Your task to perform on an android device: uninstall "ColorNote Notepad Notes" Image 0: 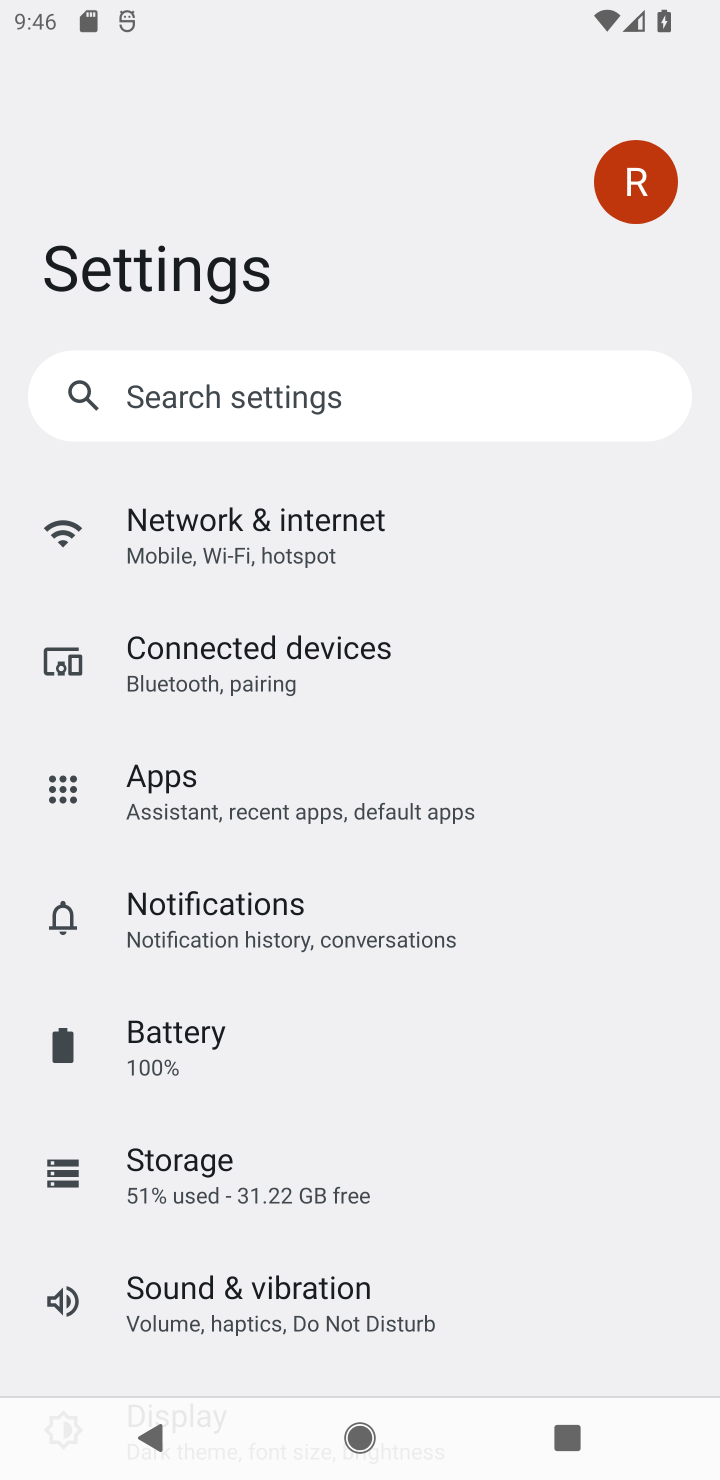
Step 0: press home button
Your task to perform on an android device: uninstall "ColorNote Notepad Notes" Image 1: 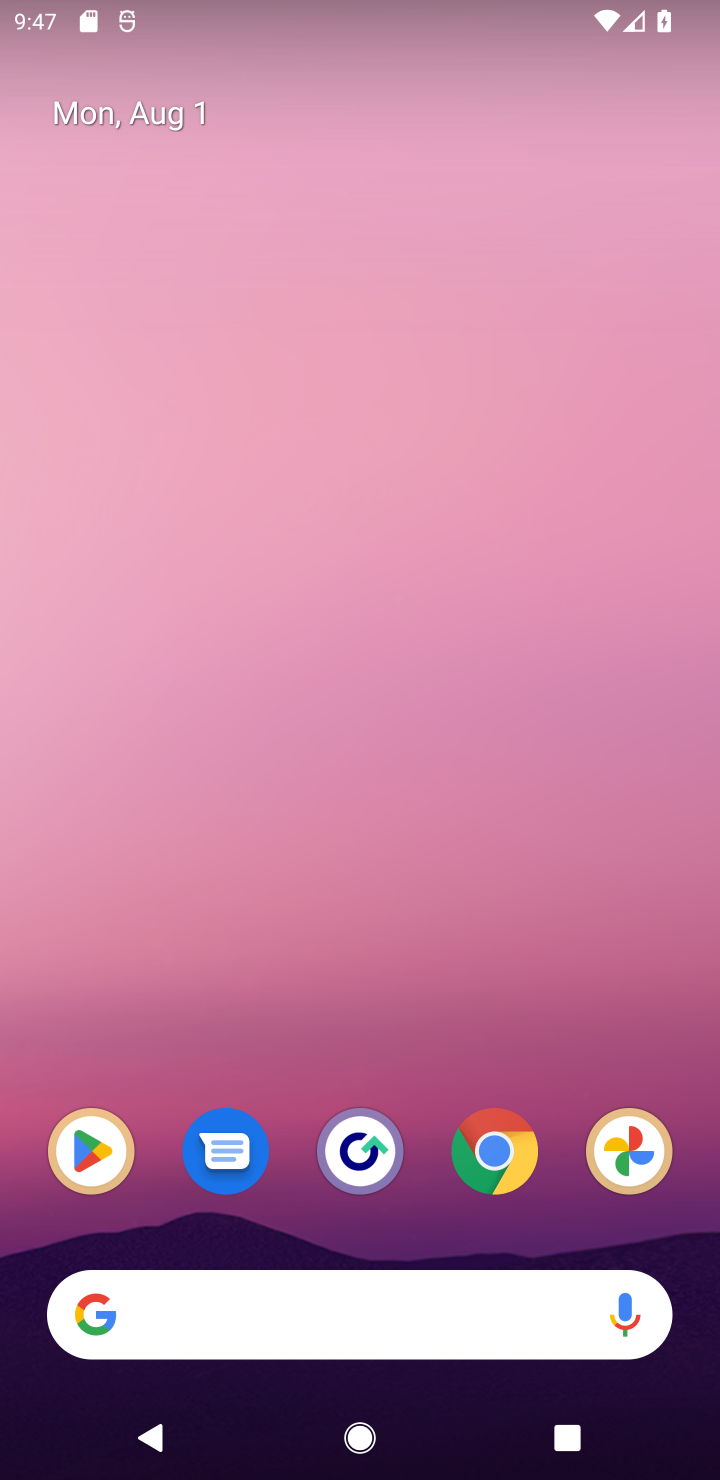
Step 1: drag from (397, 1309) to (411, 172)
Your task to perform on an android device: uninstall "ColorNote Notepad Notes" Image 2: 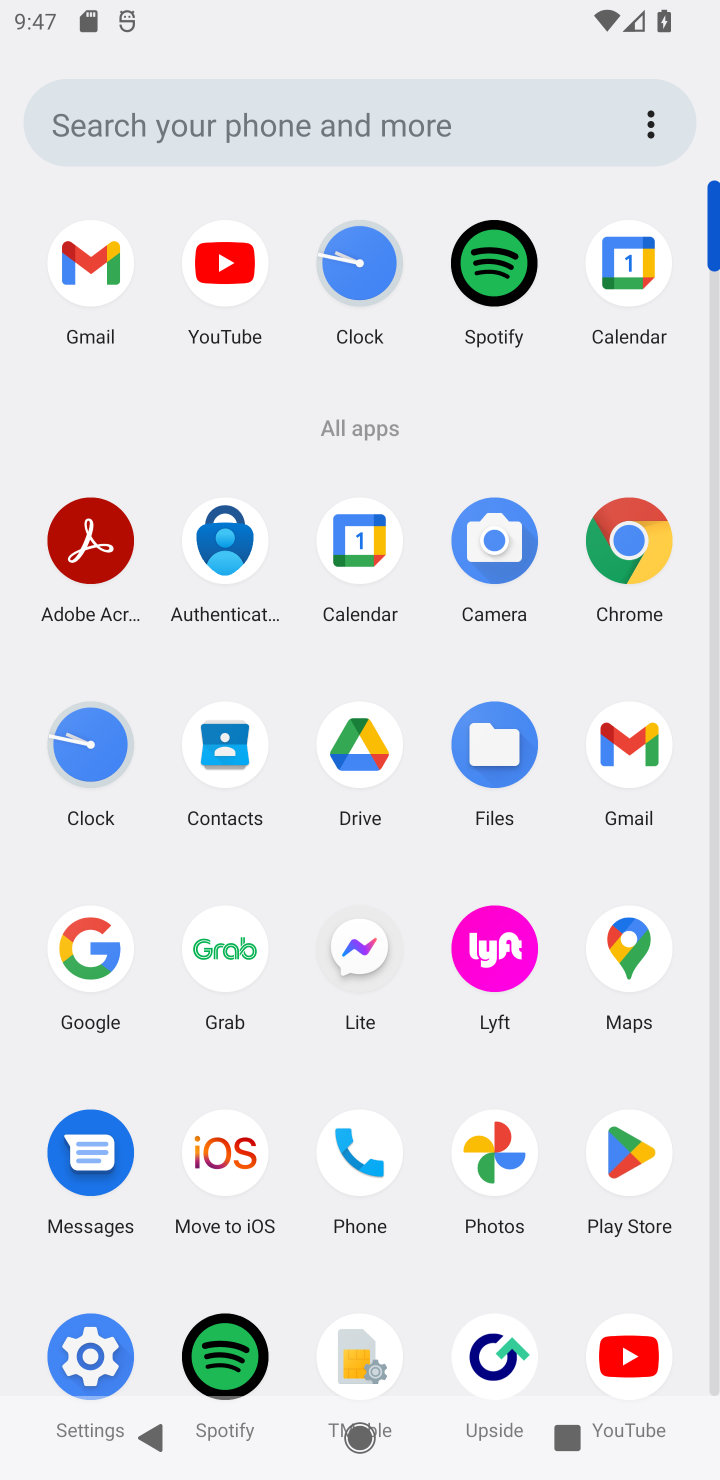
Step 2: click (635, 1164)
Your task to perform on an android device: uninstall "ColorNote Notepad Notes" Image 3: 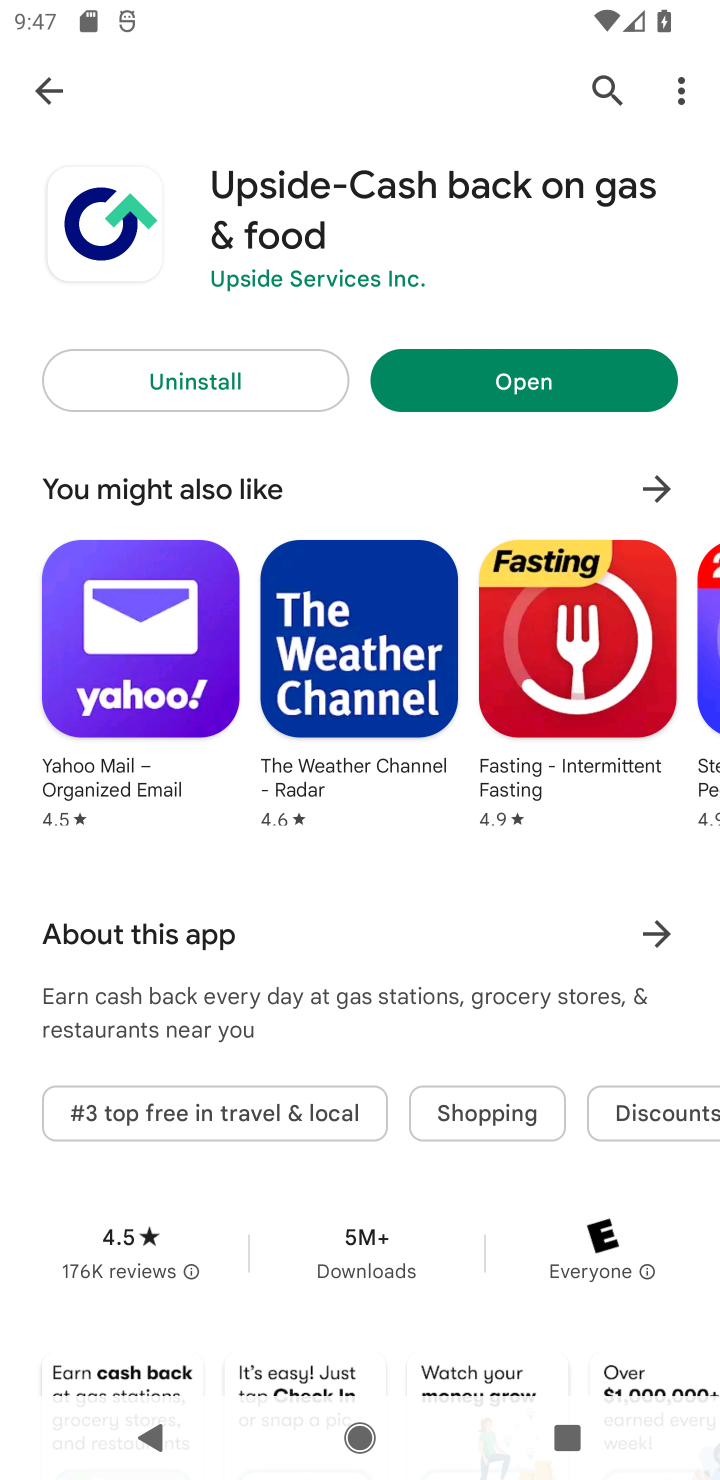
Step 3: click (61, 92)
Your task to perform on an android device: uninstall "ColorNote Notepad Notes" Image 4: 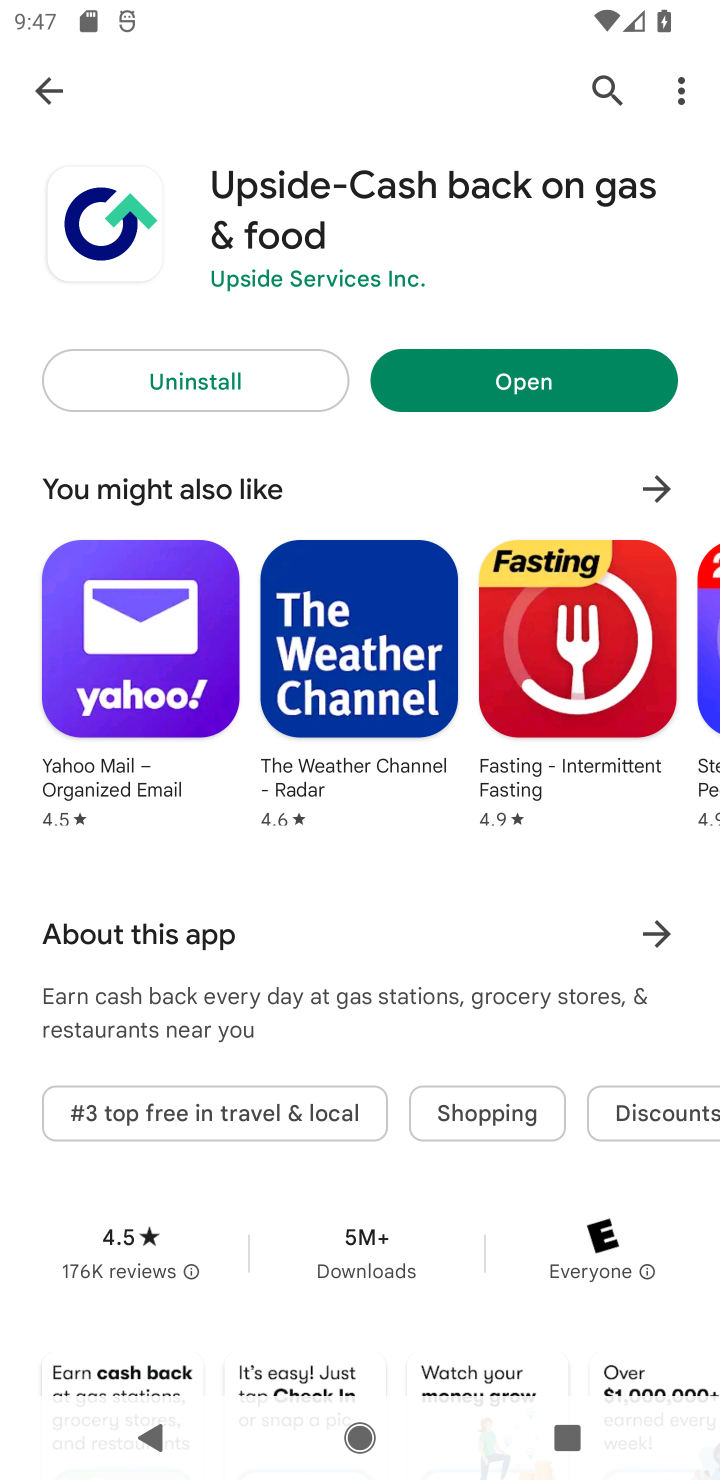
Step 4: click (632, 89)
Your task to perform on an android device: uninstall "ColorNote Notepad Notes" Image 5: 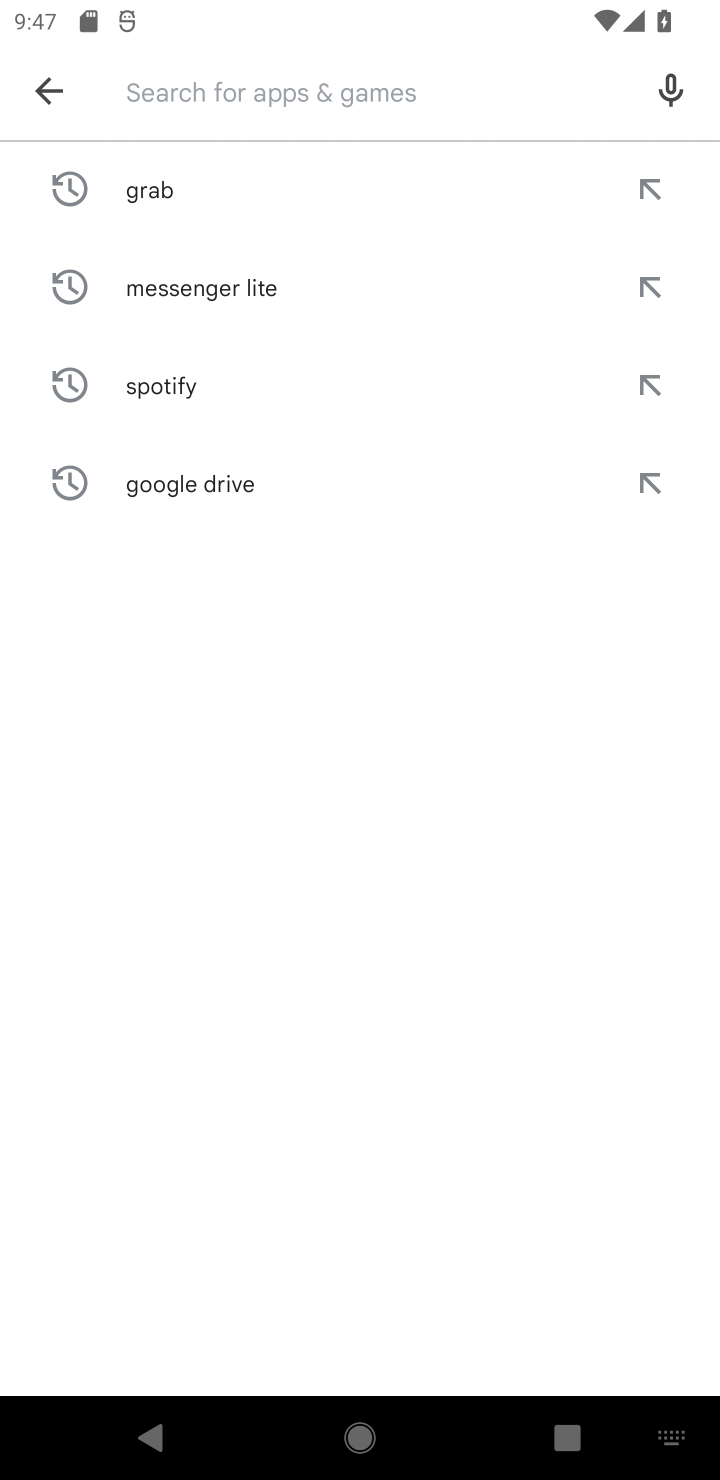
Step 5: type "ColorNote Notepad Notes"
Your task to perform on an android device: uninstall "ColorNote Notepad Notes" Image 6: 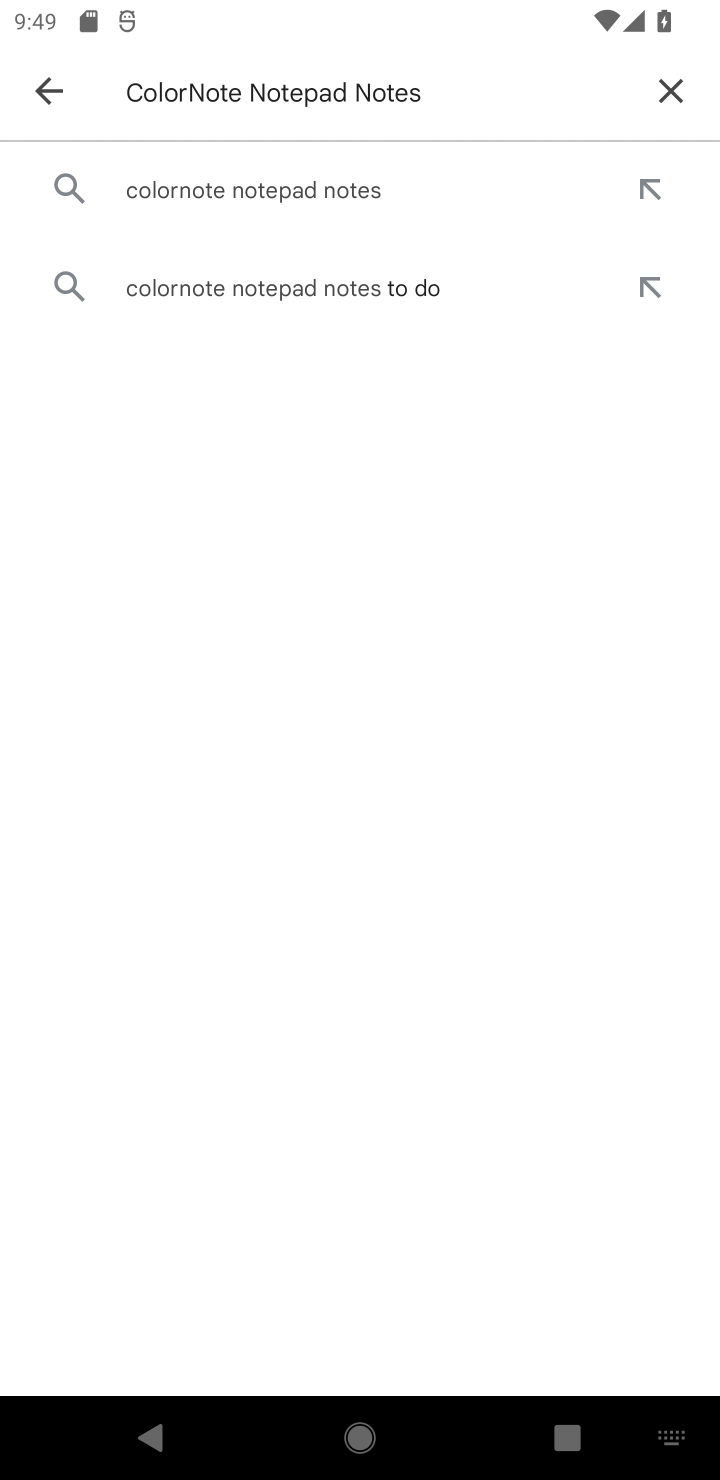
Step 6: click (258, 207)
Your task to perform on an android device: uninstall "ColorNote Notepad Notes" Image 7: 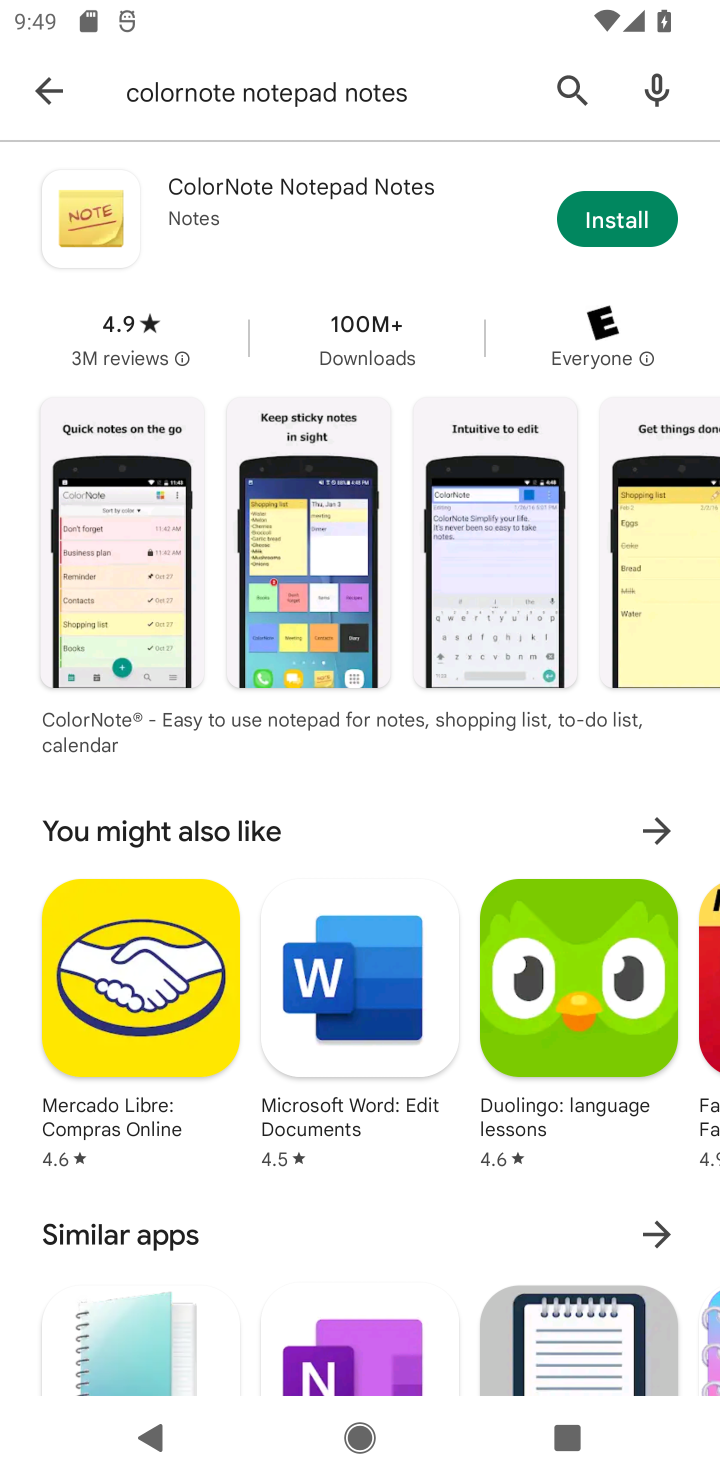
Step 7: task complete